Your task to perform on an android device: Open the stopwatch Image 0: 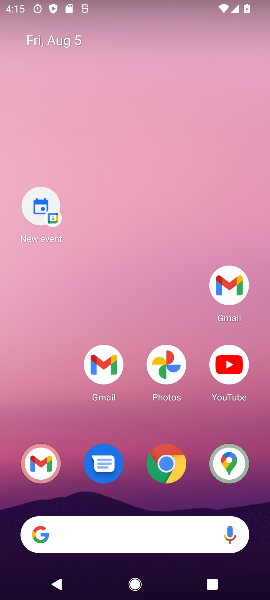
Step 0: drag from (152, 349) to (236, 17)
Your task to perform on an android device: Open the stopwatch Image 1: 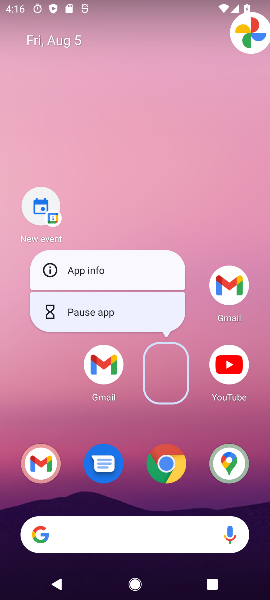
Step 1: drag from (99, 218) to (99, 167)
Your task to perform on an android device: Open the stopwatch Image 2: 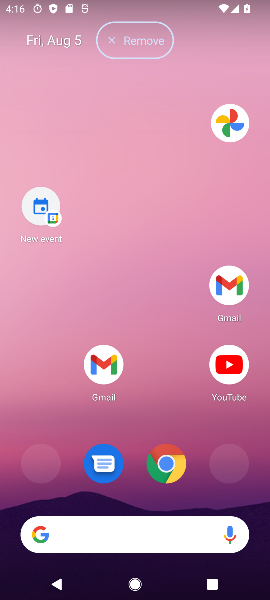
Step 2: drag from (131, 58) to (159, 102)
Your task to perform on an android device: Open the stopwatch Image 3: 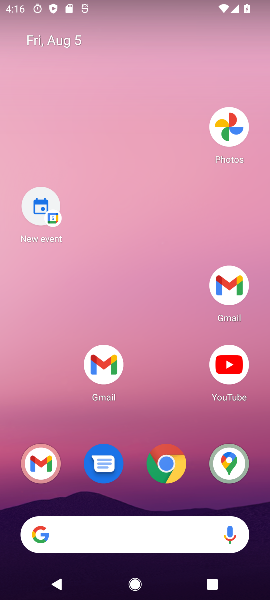
Step 3: drag from (129, 360) to (116, 79)
Your task to perform on an android device: Open the stopwatch Image 4: 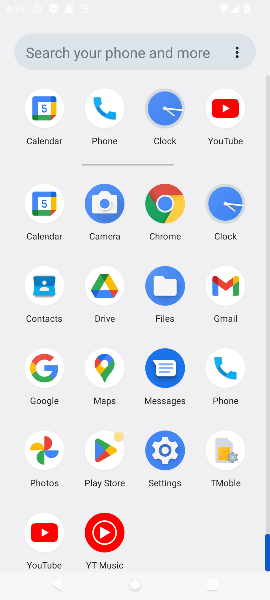
Step 4: drag from (117, 445) to (144, 95)
Your task to perform on an android device: Open the stopwatch Image 5: 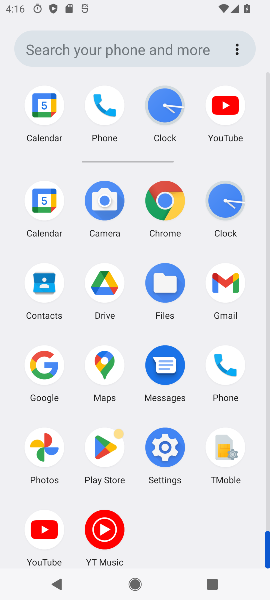
Step 5: click (222, 198)
Your task to perform on an android device: Open the stopwatch Image 6: 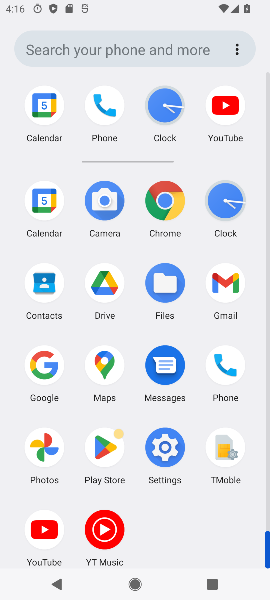
Step 6: click (222, 198)
Your task to perform on an android device: Open the stopwatch Image 7: 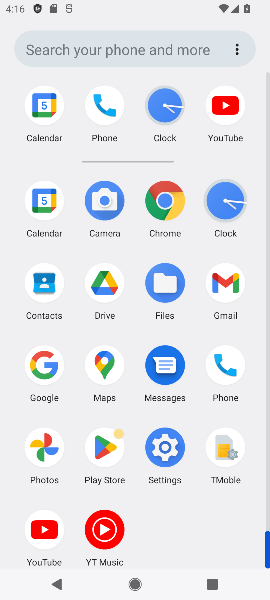
Step 7: click (224, 198)
Your task to perform on an android device: Open the stopwatch Image 8: 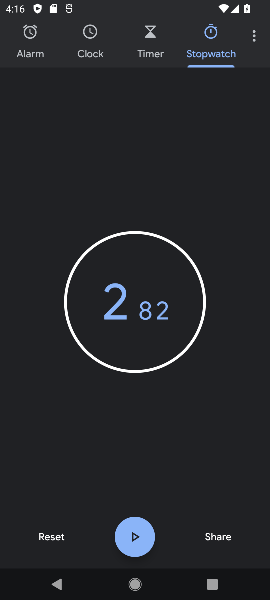
Step 8: click (130, 541)
Your task to perform on an android device: Open the stopwatch Image 9: 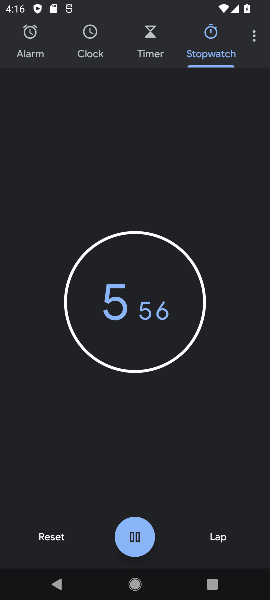
Step 9: click (132, 537)
Your task to perform on an android device: Open the stopwatch Image 10: 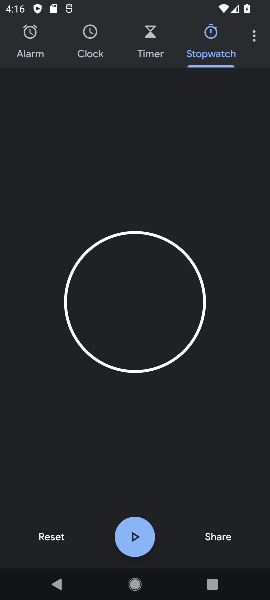
Step 10: task complete